Your task to perform on an android device: toggle data saver in the chrome app Image 0: 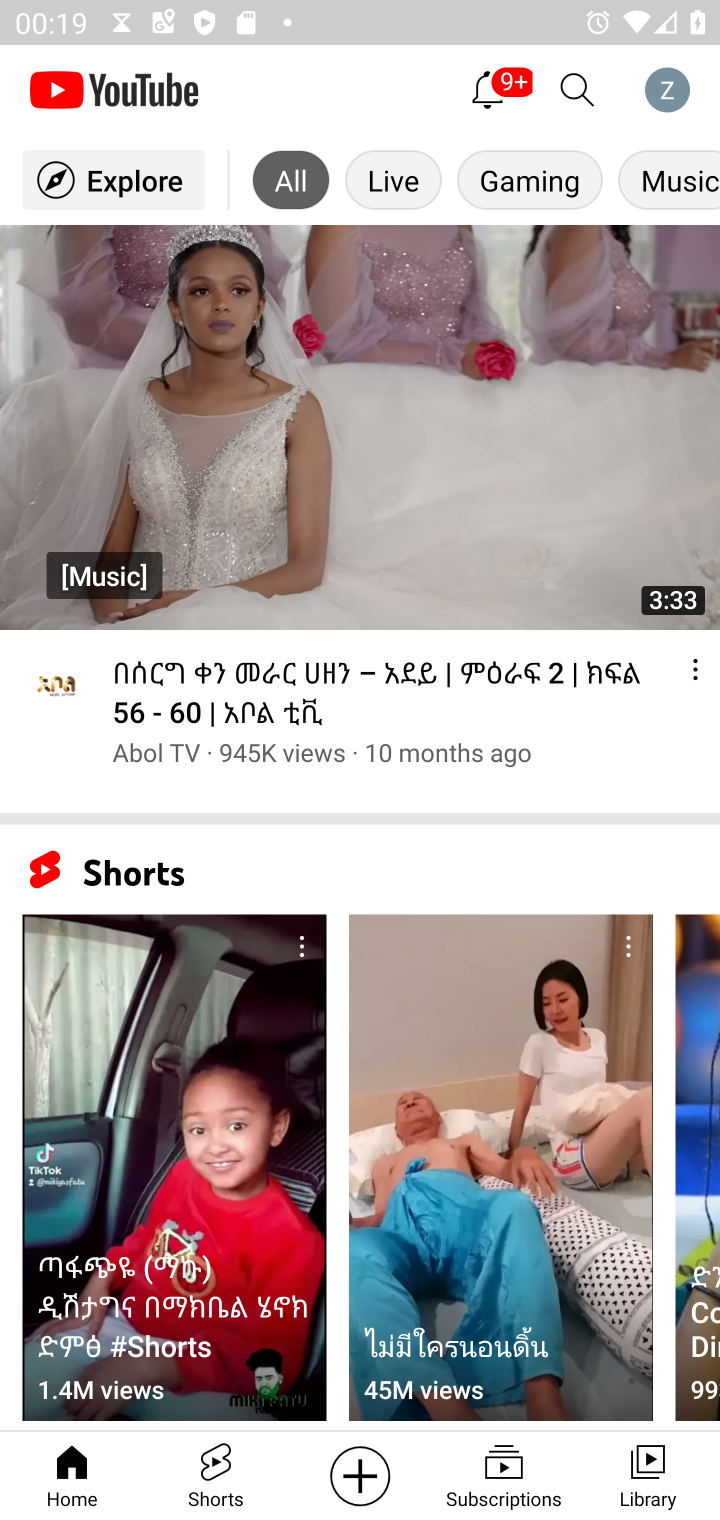
Step 0: press home button
Your task to perform on an android device: toggle data saver in the chrome app Image 1: 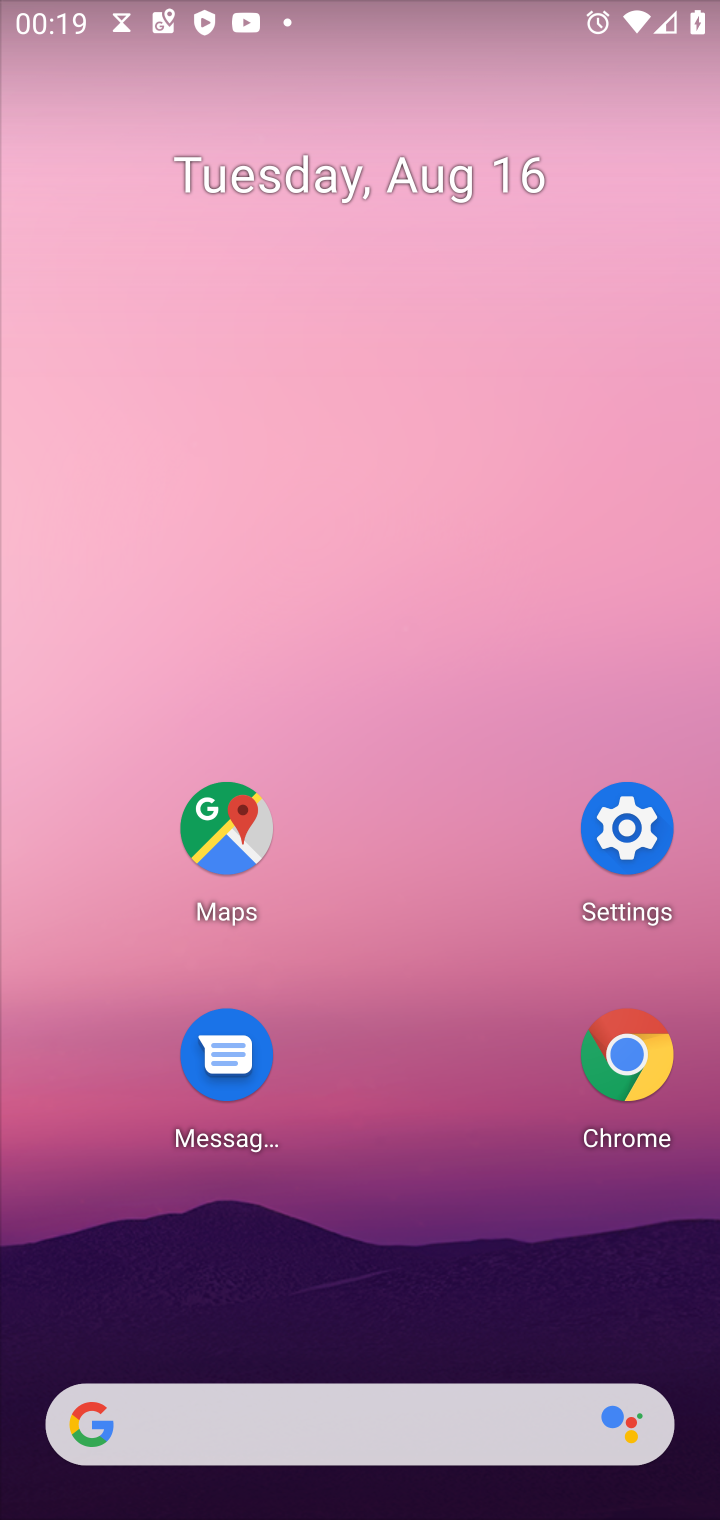
Step 1: click (646, 1047)
Your task to perform on an android device: toggle data saver in the chrome app Image 2: 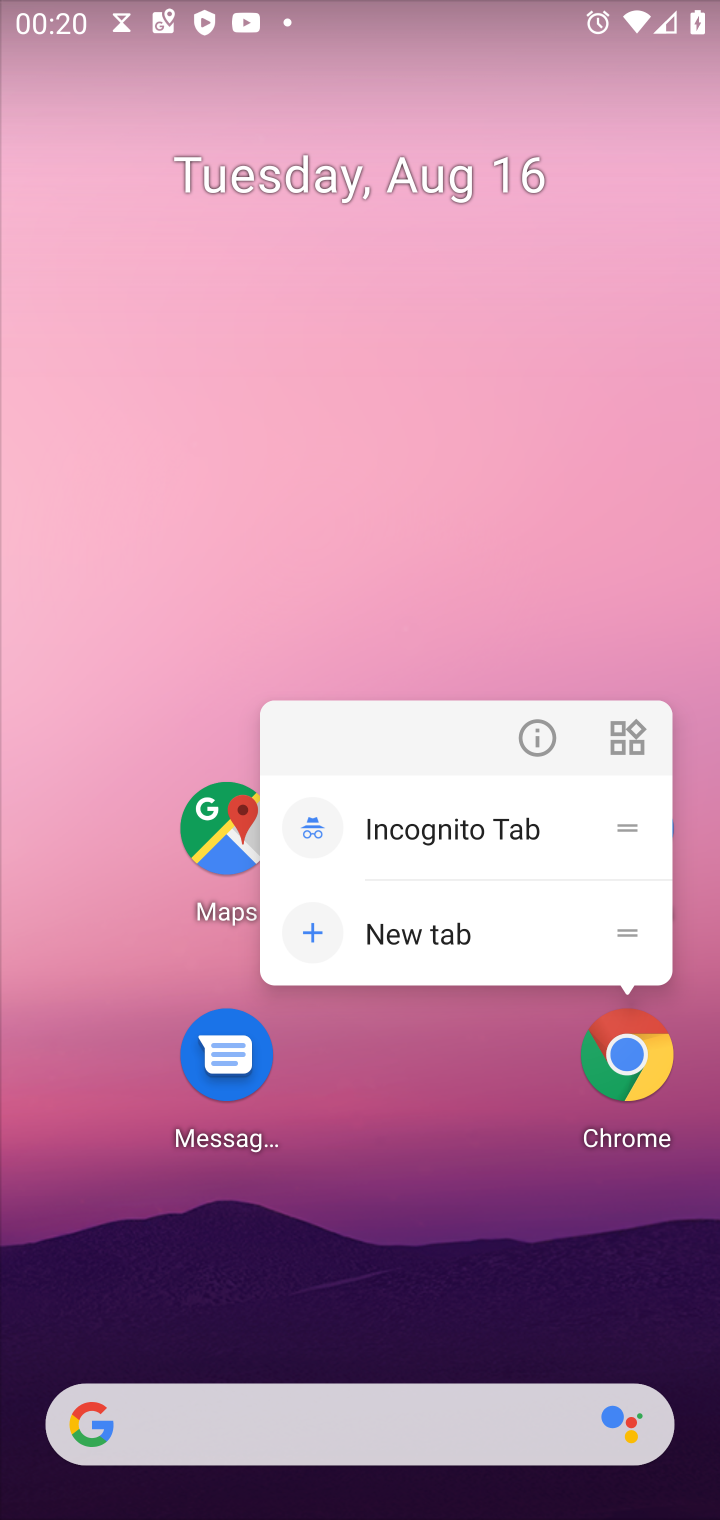
Step 2: click (638, 1036)
Your task to perform on an android device: toggle data saver in the chrome app Image 3: 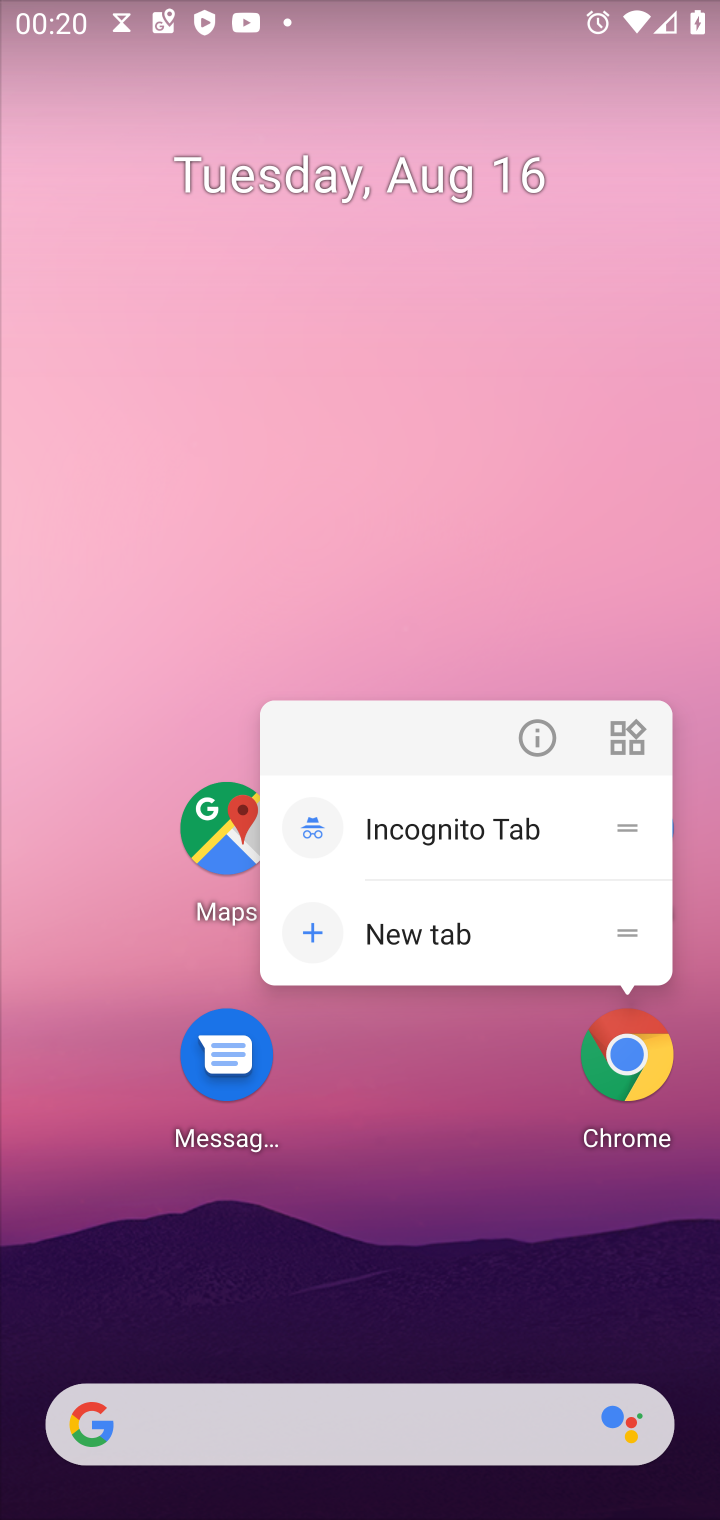
Step 3: click (638, 1050)
Your task to perform on an android device: toggle data saver in the chrome app Image 4: 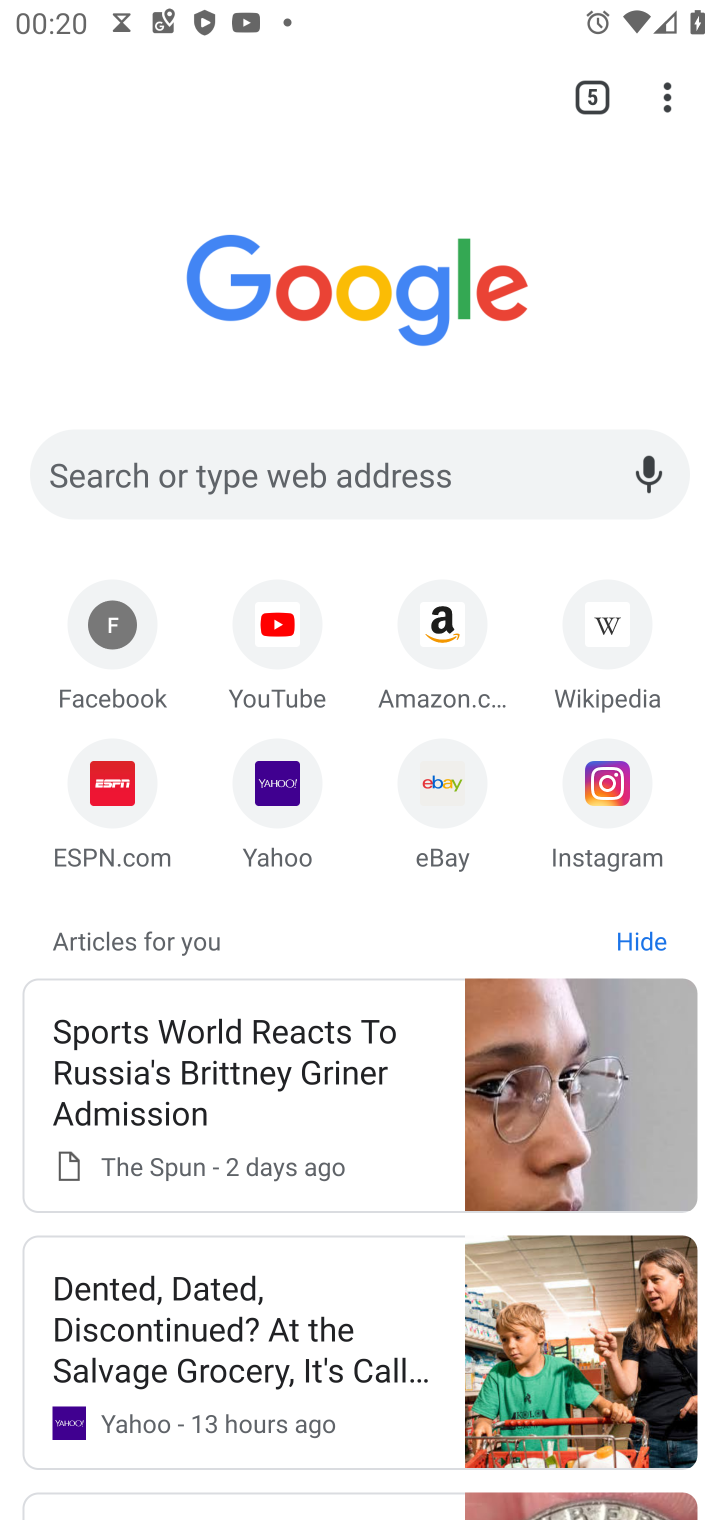
Step 4: drag from (669, 89) to (434, 794)
Your task to perform on an android device: toggle data saver in the chrome app Image 5: 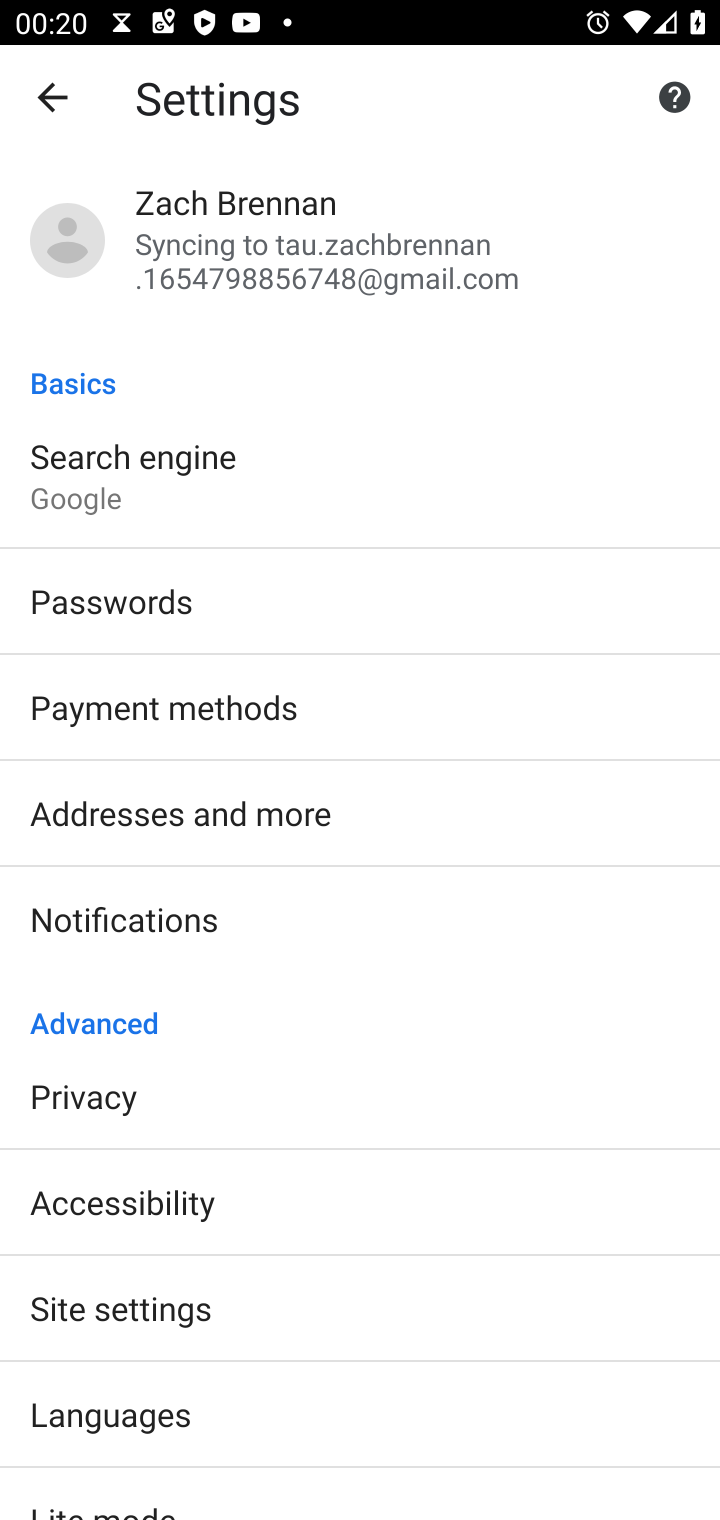
Step 5: drag from (299, 1397) to (618, 711)
Your task to perform on an android device: toggle data saver in the chrome app Image 6: 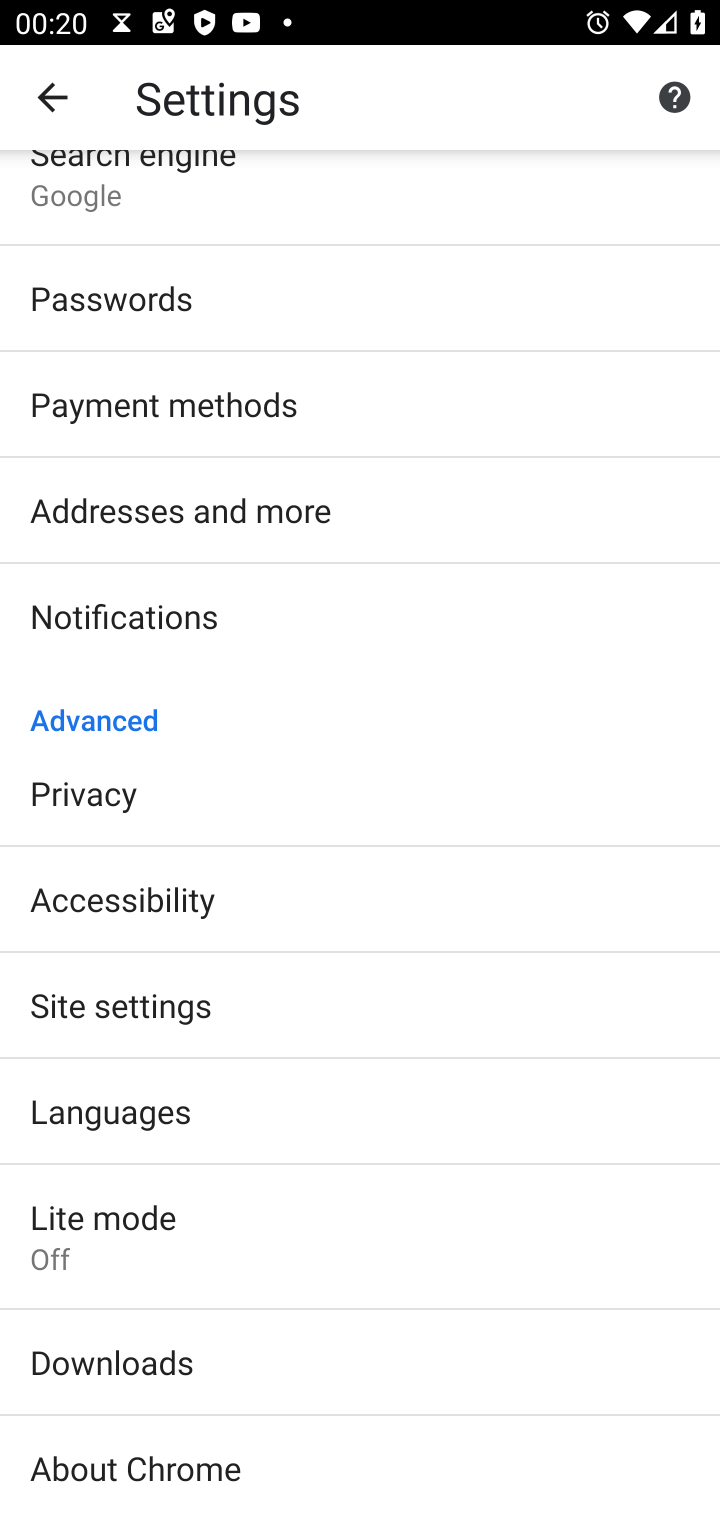
Step 6: click (62, 1242)
Your task to perform on an android device: toggle data saver in the chrome app Image 7: 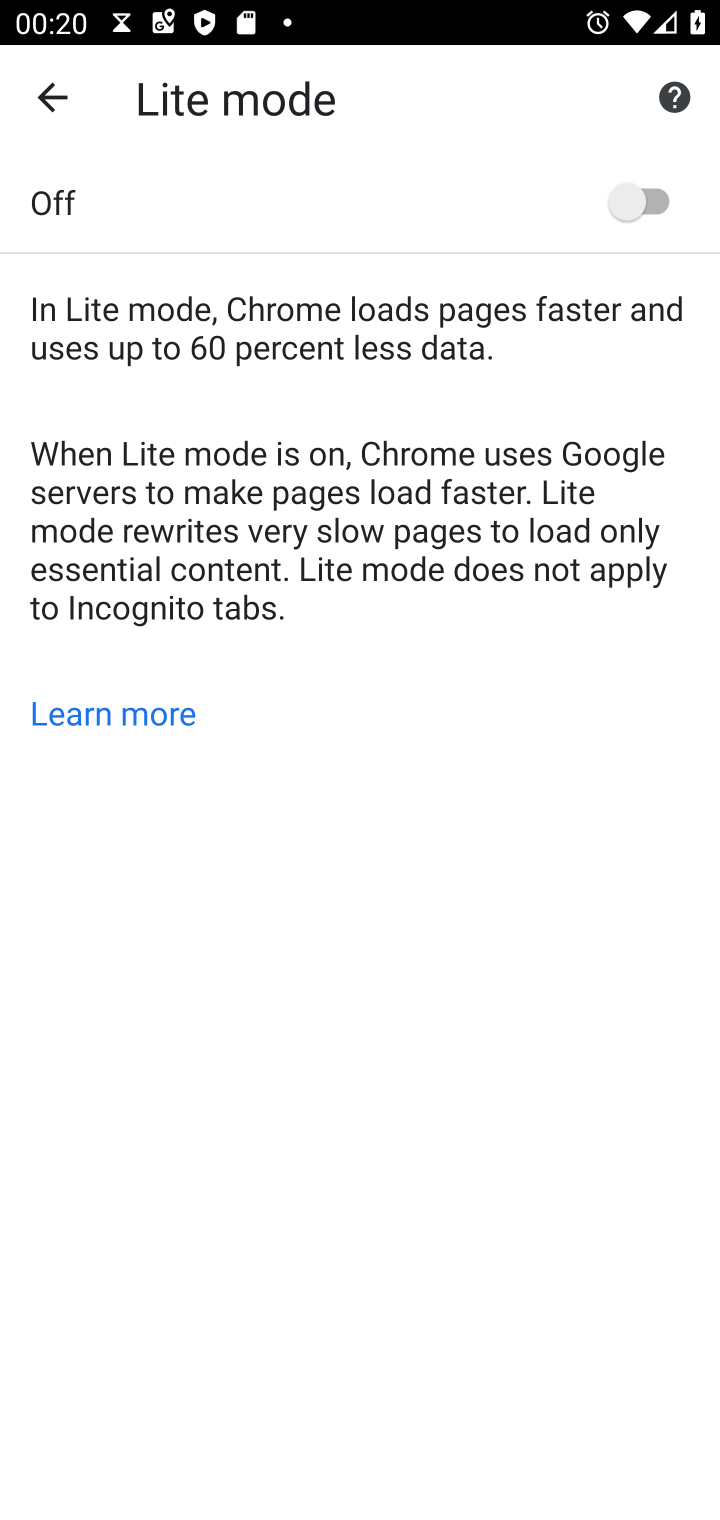
Step 7: click (655, 194)
Your task to perform on an android device: toggle data saver in the chrome app Image 8: 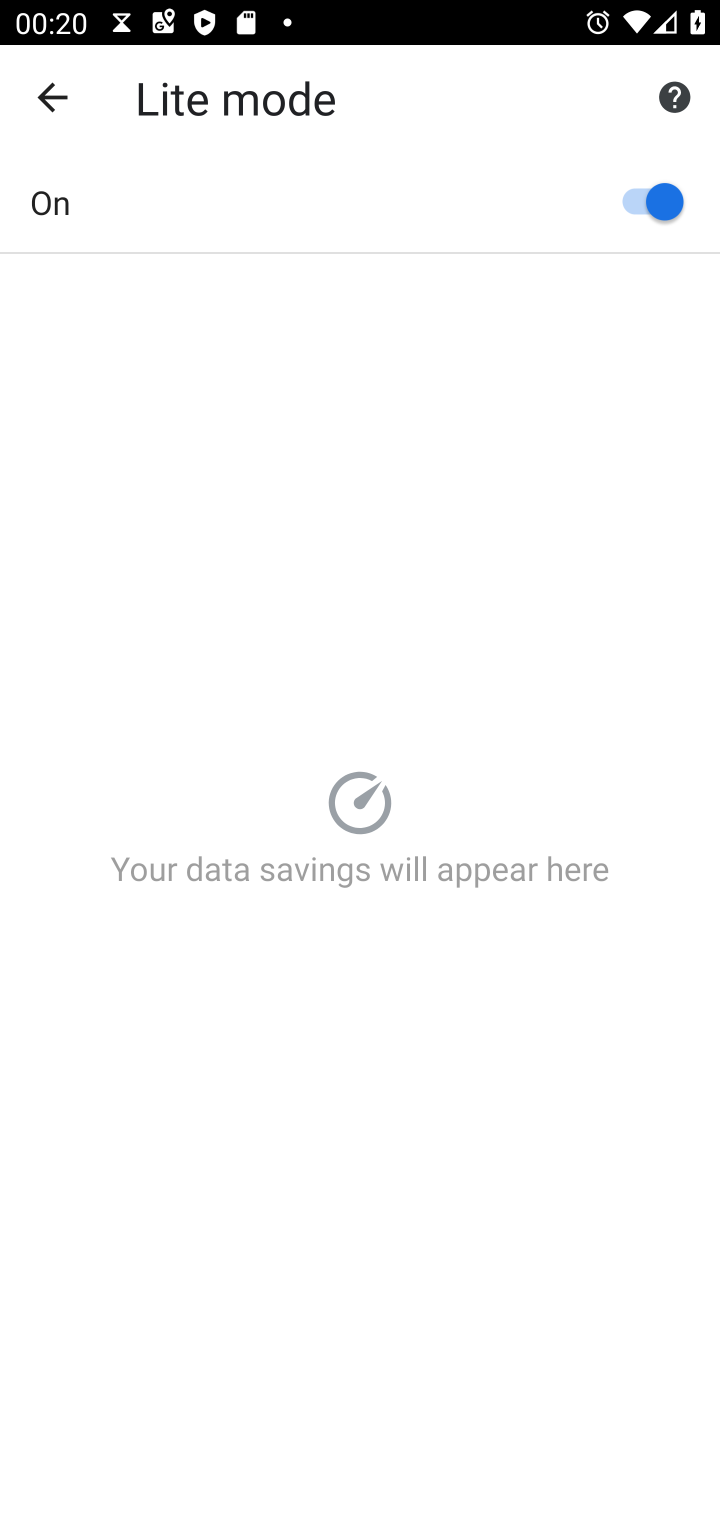
Step 8: task complete